Your task to perform on an android device: Open calendar and show me the fourth week of next month Image 0: 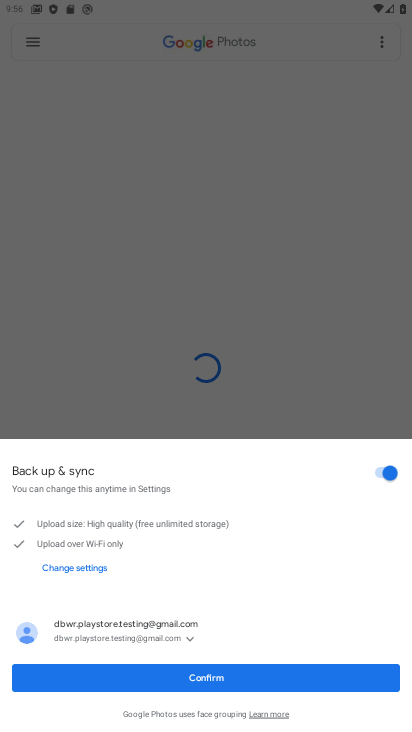
Step 0: press home button
Your task to perform on an android device: Open calendar and show me the fourth week of next month Image 1: 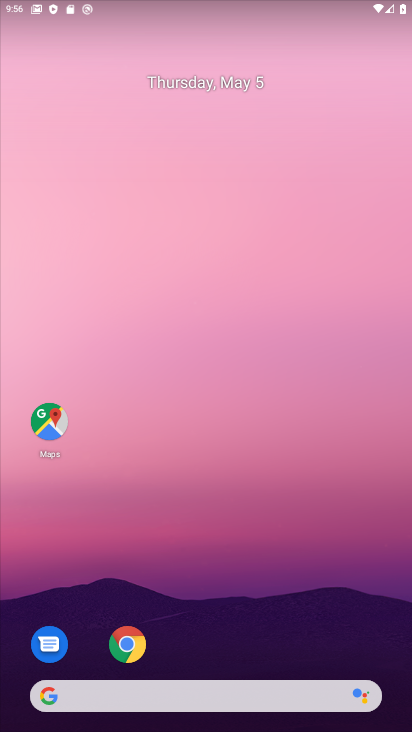
Step 1: drag from (205, 670) to (248, 4)
Your task to perform on an android device: Open calendar and show me the fourth week of next month Image 2: 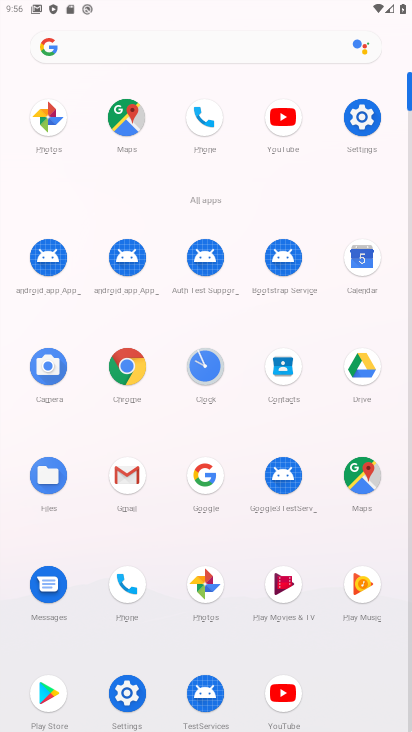
Step 2: click (365, 248)
Your task to perform on an android device: Open calendar and show me the fourth week of next month Image 3: 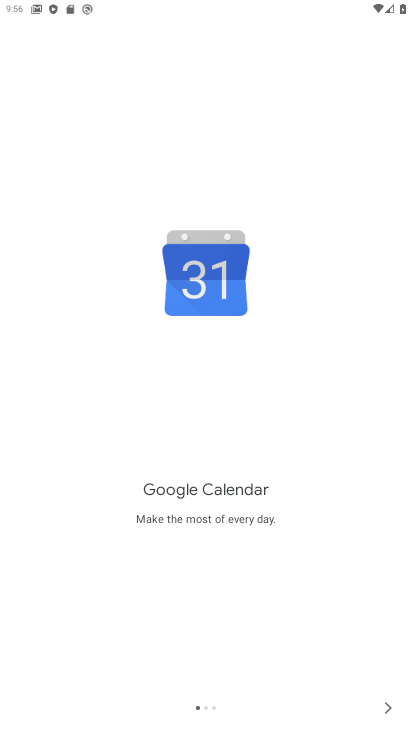
Step 3: click (388, 707)
Your task to perform on an android device: Open calendar and show me the fourth week of next month Image 4: 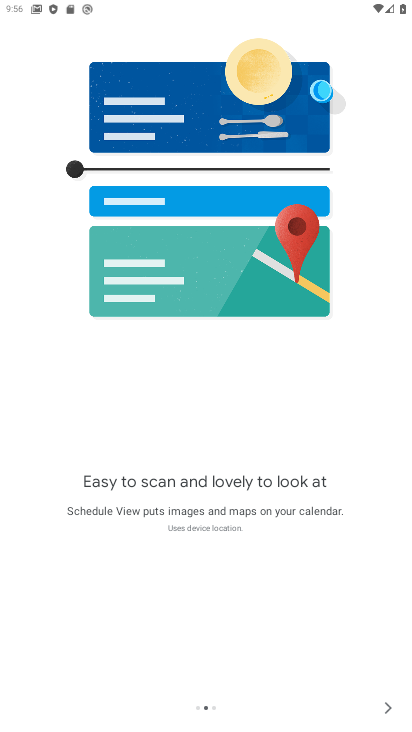
Step 4: click (388, 707)
Your task to perform on an android device: Open calendar and show me the fourth week of next month Image 5: 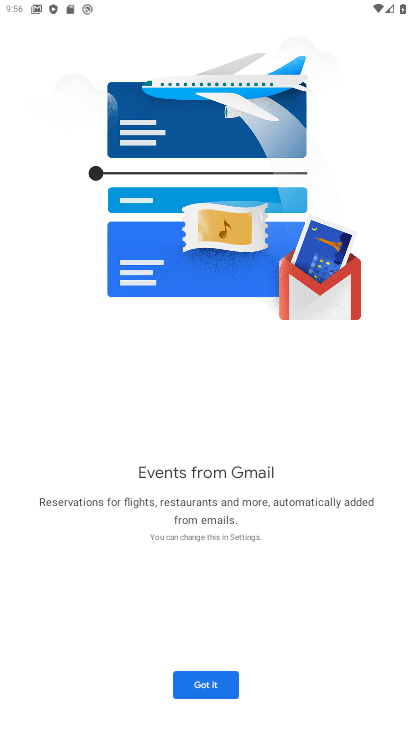
Step 5: click (203, 681)
Your task to perform on an android device: Open calendar and show me the fourth week of next month Image 6: 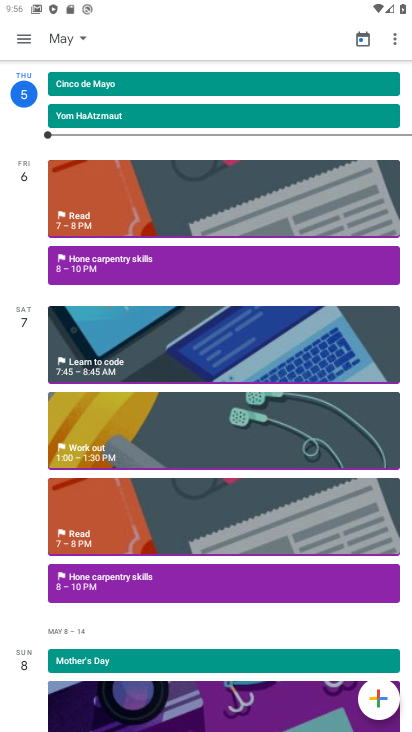
Step 6: click (18, 37)
Your task to perform on an android device: Open calendar and show me the fourth week of next month Image 7: 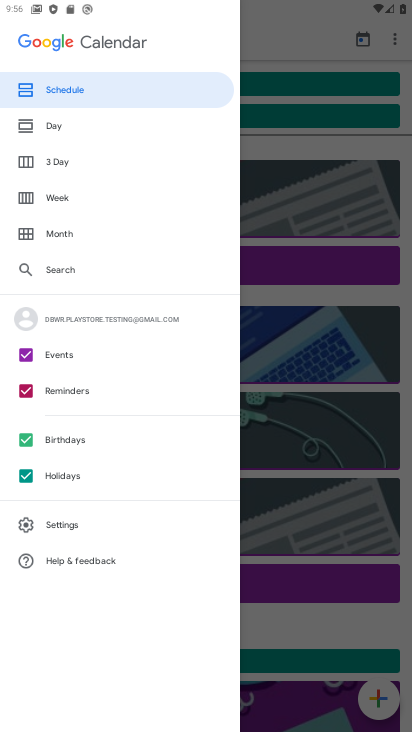
Step 7: click (69, 196)
Your task to perform on an android device: Open calendar and show me the fourth week of next month Image 8: 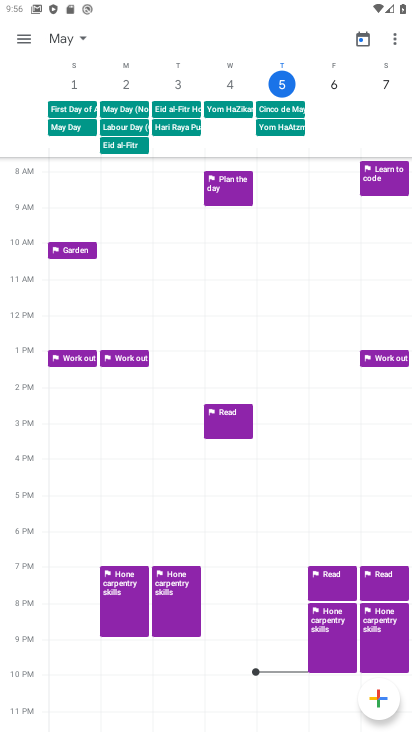
Step 8: task complete